Your task to perform on an android device: Show me the alarms in the clock app Image 0: 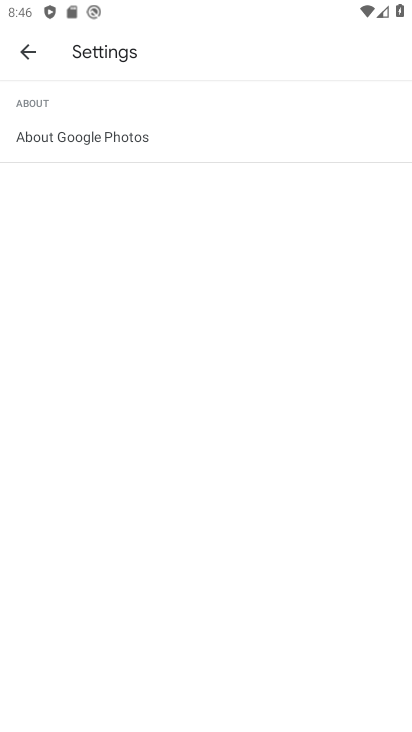
Step 0: press home button
Your task to perform on an android device: Show me the alarms in the clock app Image 1: 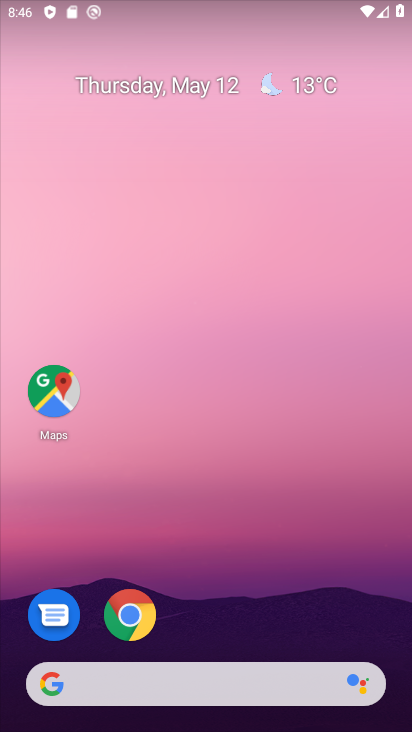
Step 1: drag from (204, 662) to (192, 20)
Your task to perform on an android device: Show me the alarms in the clock app Image 2: 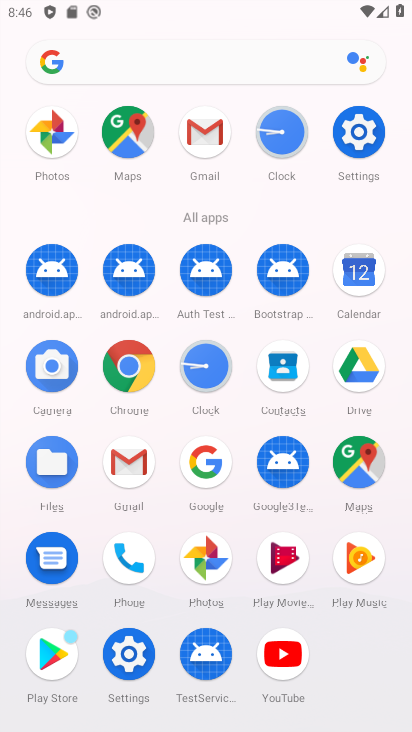
Step 2: click (280, 129)
Your task to perform on an android device: Show me the alarms in the clock app Image 3: 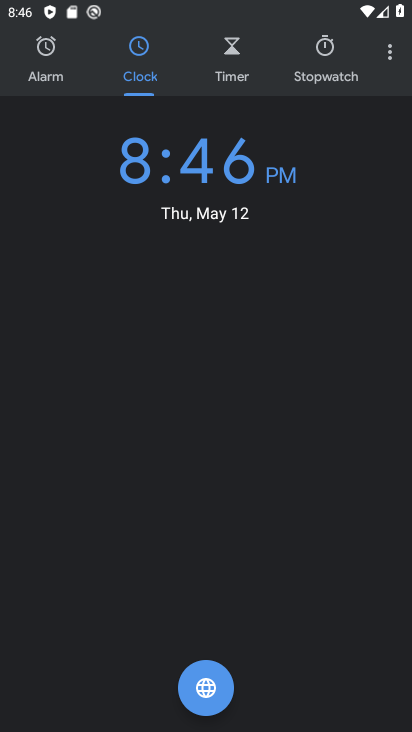
Step 3: click (42, 87)
Your task to perform on an android device: Show me the alarms in the clock app Image 4: 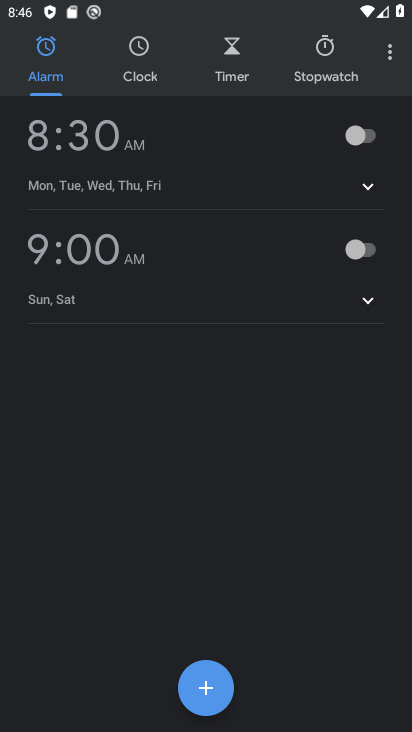
Step 4: click (210, 701)
Your task to perform on an android device: Show me the alarms in the clock app Image 5: 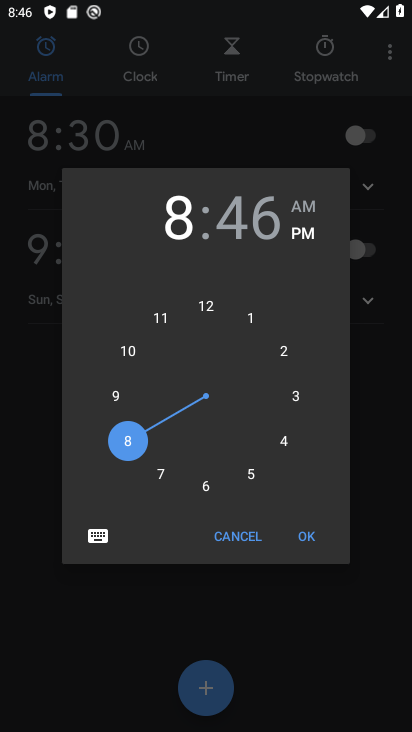
Step 5: click (240, 543)
Your task to perform on an android device: Show me the alarms in the clock app Image 6: 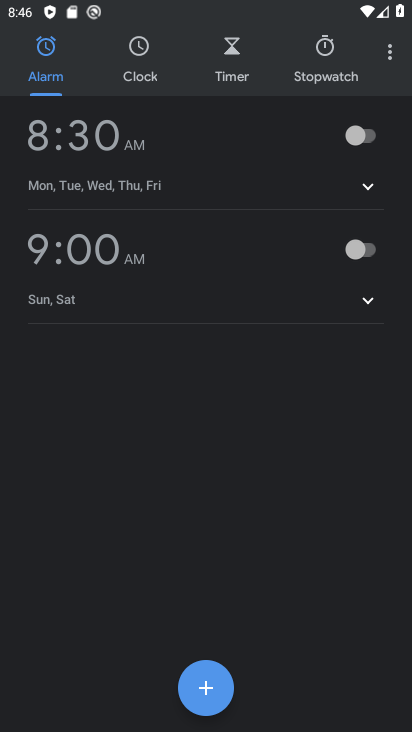
Step 6: task complete